Your task to perform on an android device: check data usage Image 0: 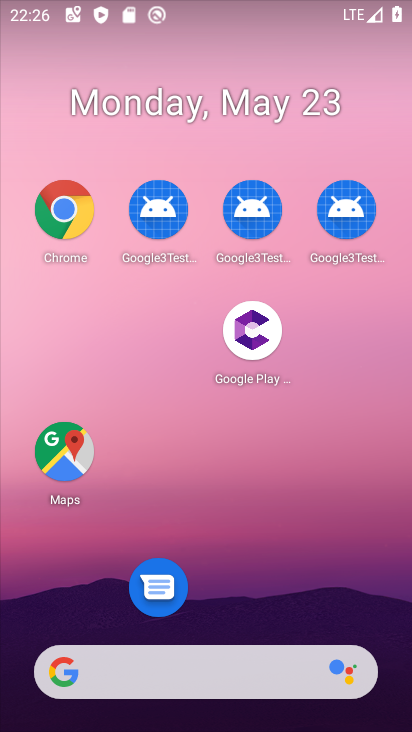
Step 0: drag from (341, 495) to (294, 47)
Your task to perform on an android device: check data usage Image 1: 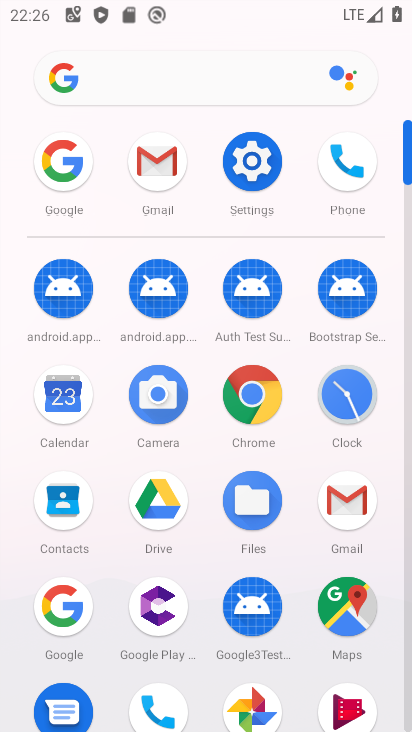
Step 1: click (272, 157)
Your task to perform on an android device: check data usage Image 2: 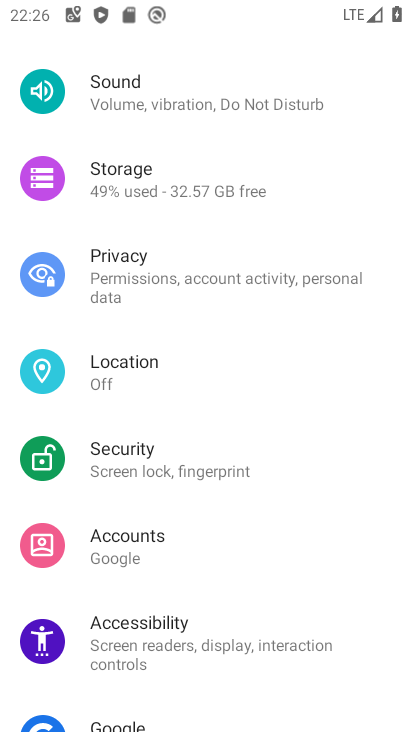
Step 2: drag from (213, 147) to (244, 407)
Your task to perform on an android device: check data usage Image 3: 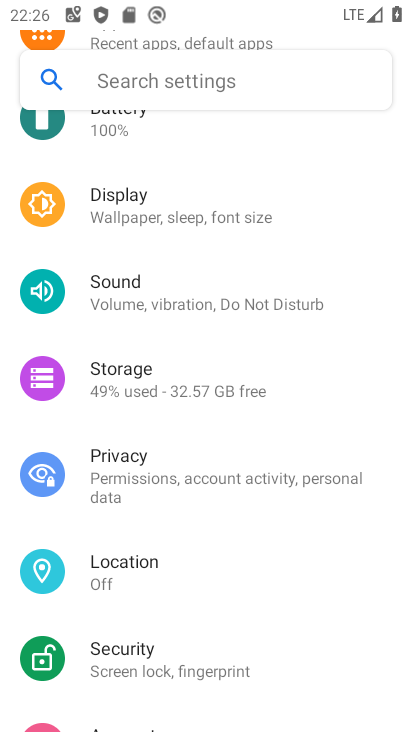
Step 3: drag from (211, 250) to (209, 469)
Your task to perform on an android device: check data usage Image 4: 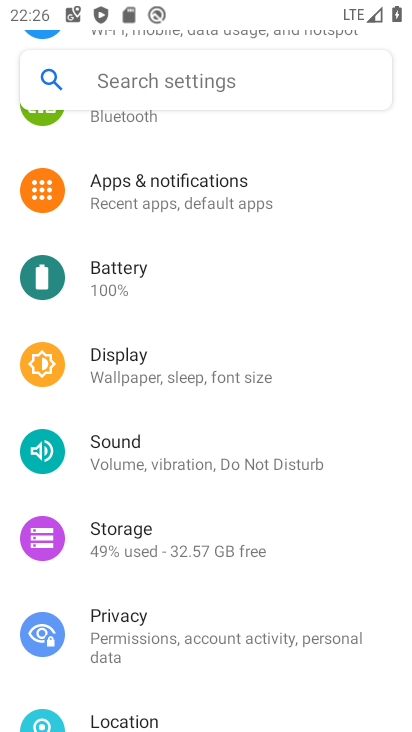
Step 4: drag from (251, 212) to (278, 537)
Your task to perform on an android device: check data usage Image 5: 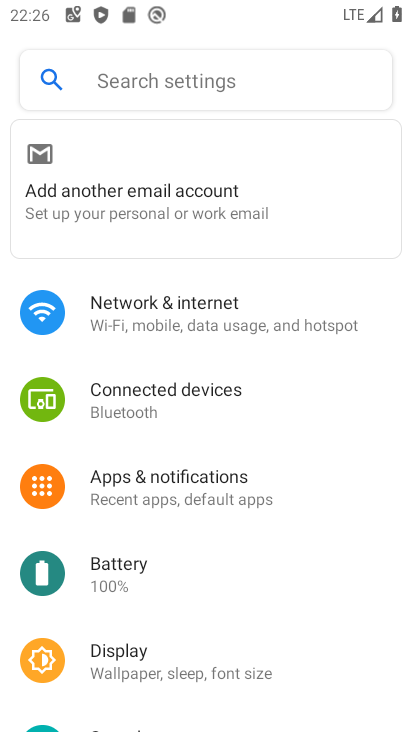
Step 5: click (129, 314)
Your task to perform on an android device: check data usage Image 6: 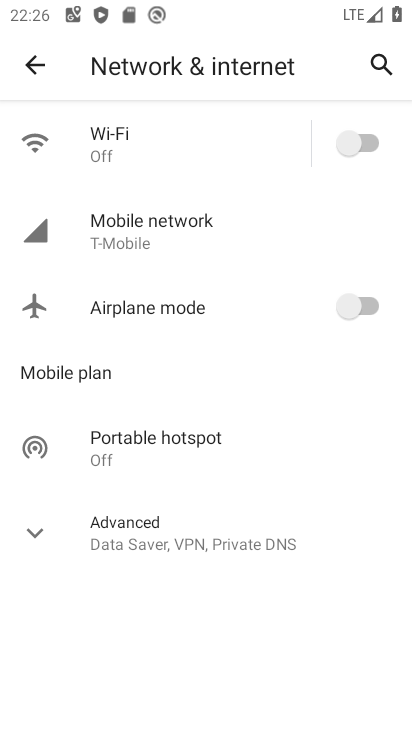
Step 6: click (128, 240)
Your task to perform on an android device: check data usage Image 7: 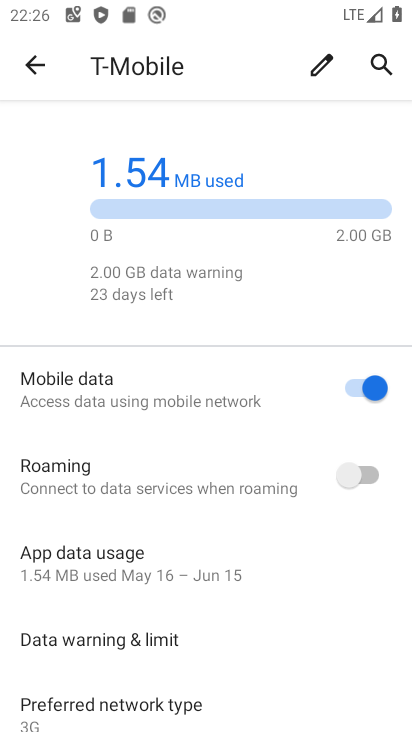
Step 7: task complete